Your task to perform on an android device: Check the news Image 0: 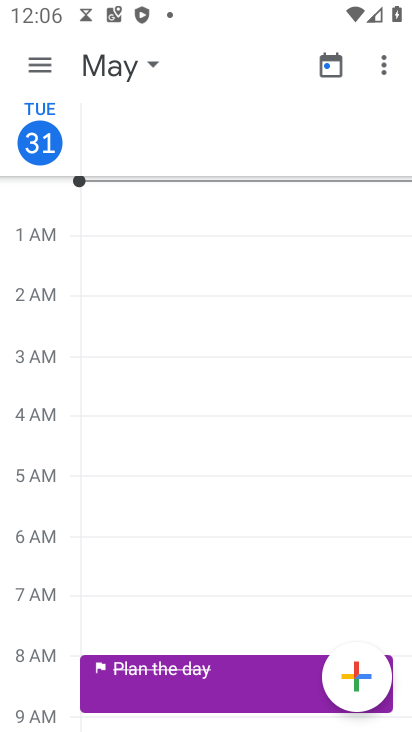
Step 0: press home button
Your task to perform on an android device: Check the news Image 1: 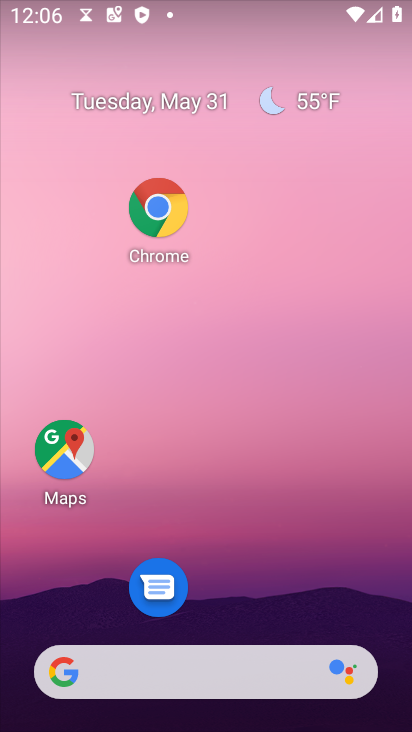
Step 1: click (158, 246)
Your task to perform on an android device: Check the news Image 2: 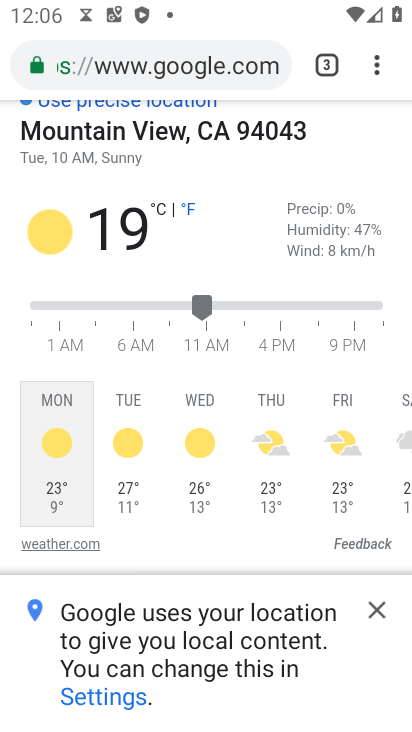
Step 2: click (326, 66)
Your task to perform on an android device: Check the news Image 3: 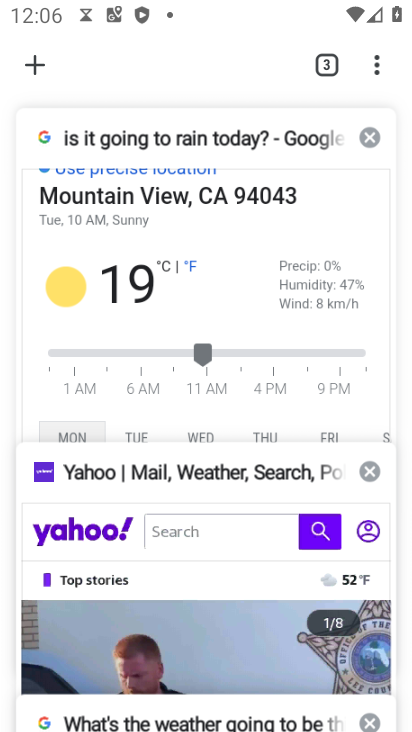
Step 3: click (24, 59)
Your task to perform on an android device: Check the news Image 4: 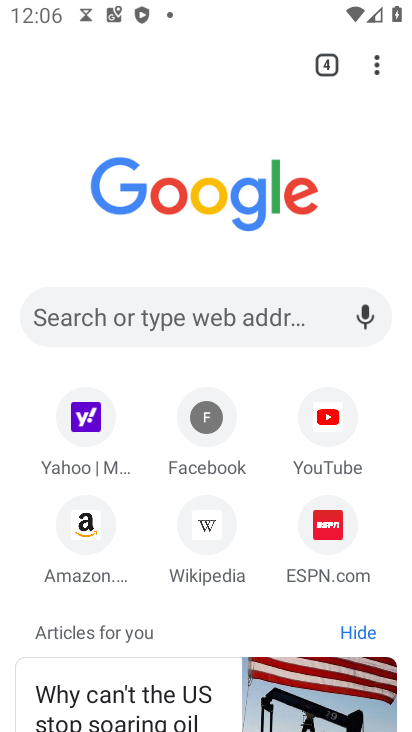
Step 4: click (127, 329)
Your task to perform on an android device: Check the news Image 5: 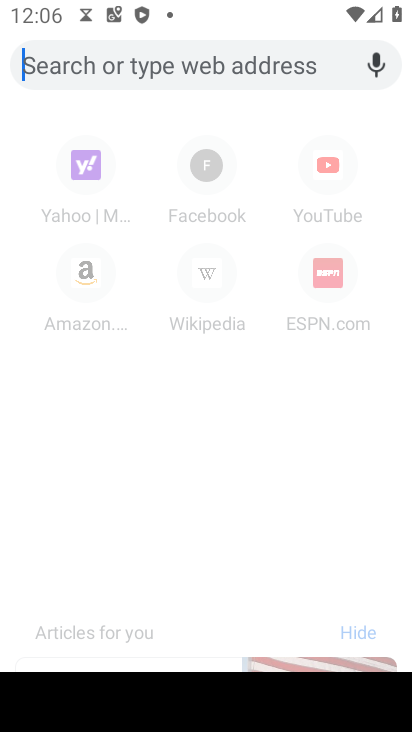
Step 5: type "check the news"
Your task to perform on an android device: Check the news Image 6: 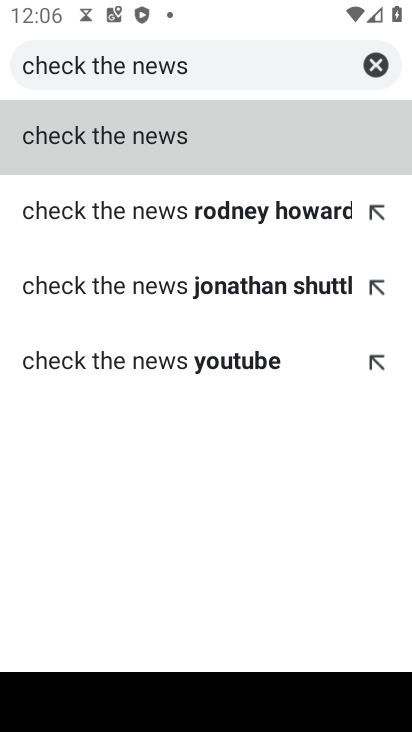
Step 6: click (170, 151)
Your task to perform on an android device: Check the news Image 7: 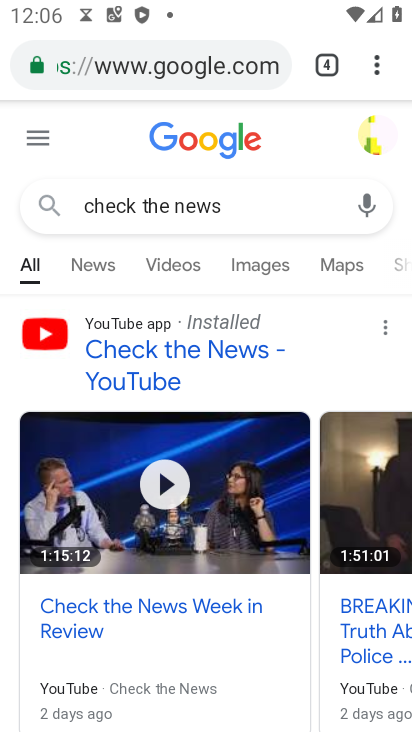
Step 7: click (103, 262)
Your task to perform on an android device: Check the news Image 8: 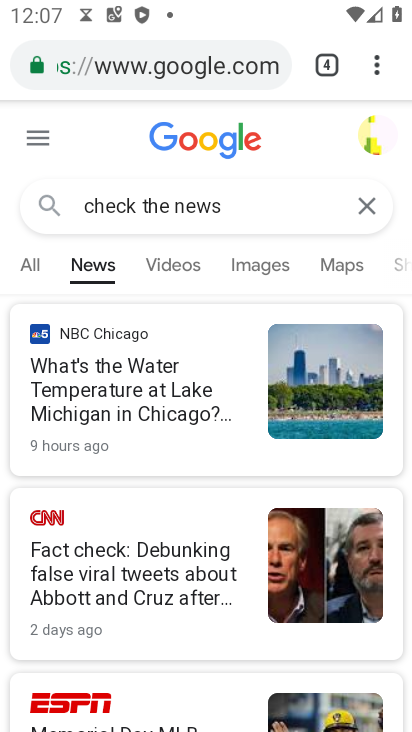
Step 8: task complete